Your task to perform on an android device: What's on my calendar today? Image 0: 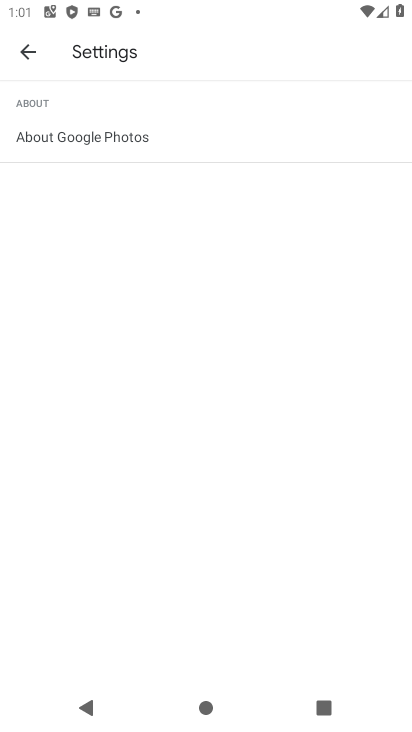
Step 0: press home button
Your task to perform on an android device: What's on my calendar today? Image 1: 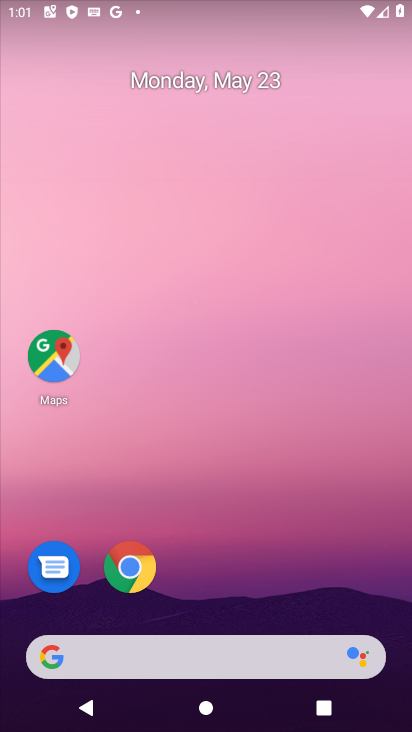
Step 1: drag from (234, 603) to (259, 130)
Your task to perform on an android device: What's on my calendar today? Image 2: 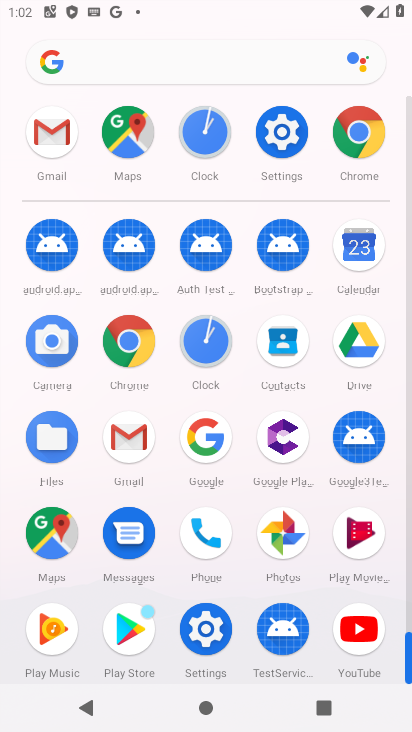
Step 2: click (346, 235)
Your task to perform on an android device: What's on my calendar today? Image 3: 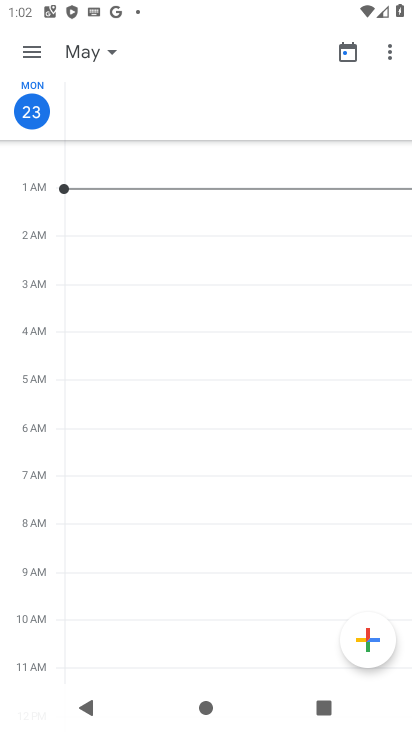
Step 3: task complete